Your task to perform on an android device: create a new album in the google photos Image 0: 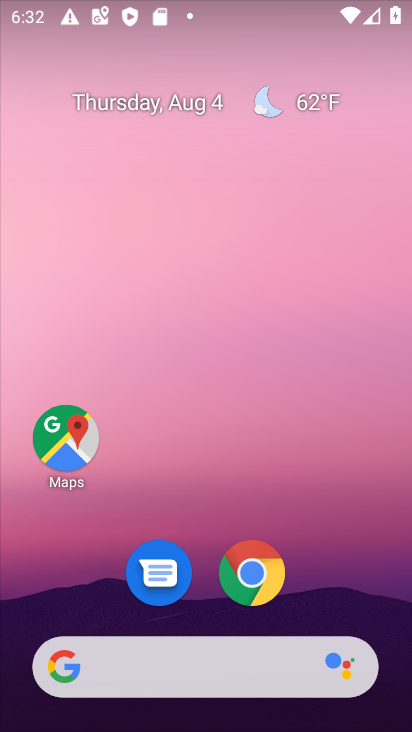
Step 0: press home button
Your task to perform on an android device: create a new album in the google photos Image 1: 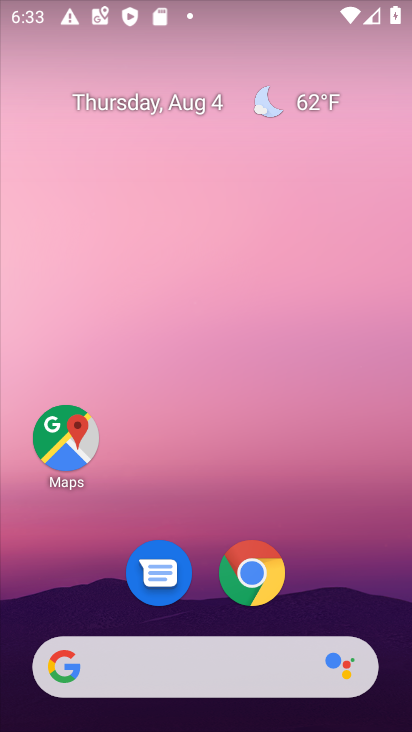
Step 1: drag from (206, 623) to (244, 200)
Your task to perform on an android device: create a new album in the google photos Image 2: 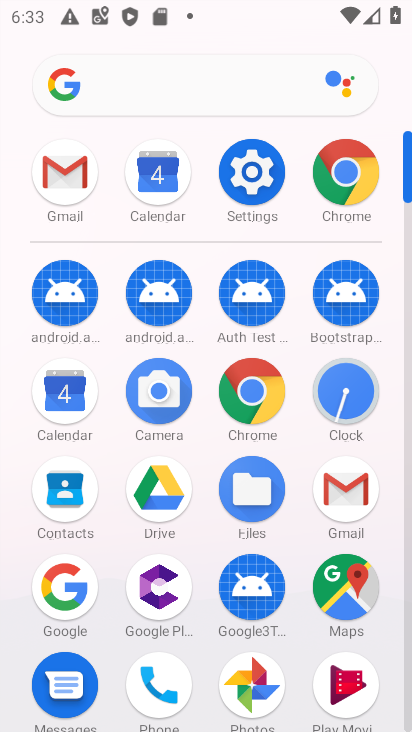
Step 2: click (250, 679)
Your task to perform on an android device: create a new album in the google photos Image 3: 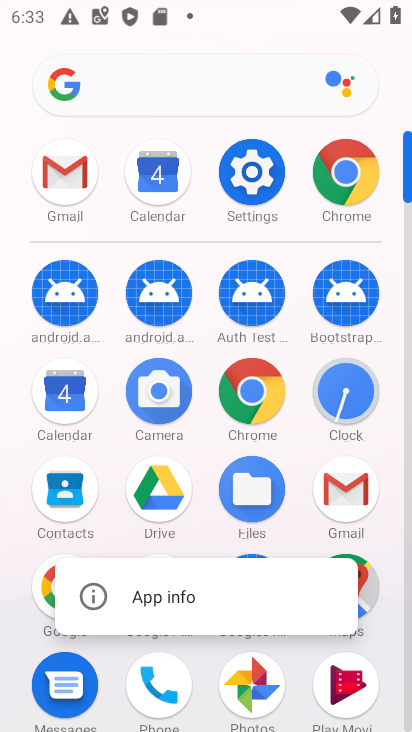
Step 3: click (250, 679)
Your task to perform on an android device: create a new album in the google photos Image 4: 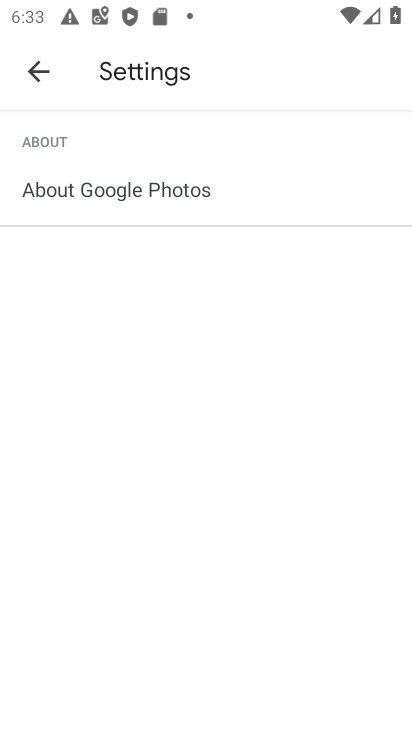
Step 4: click (35, 61)
Your task to perform on an android device: create a new album in the google photos Image 5: 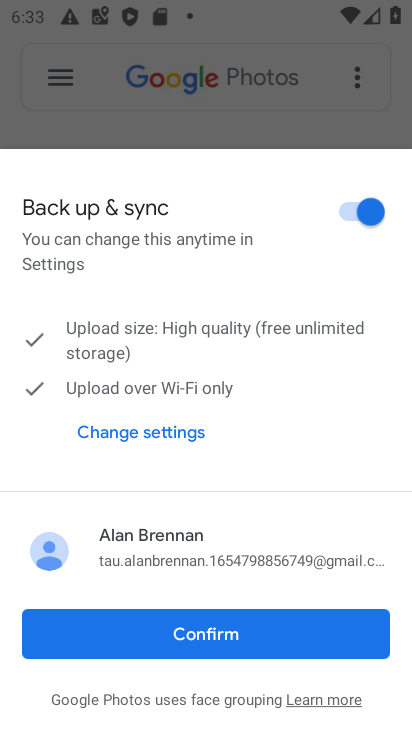
Step 5: click (271, 643)
Your task to perform on an android device: create a new album in the google photos Image 6: 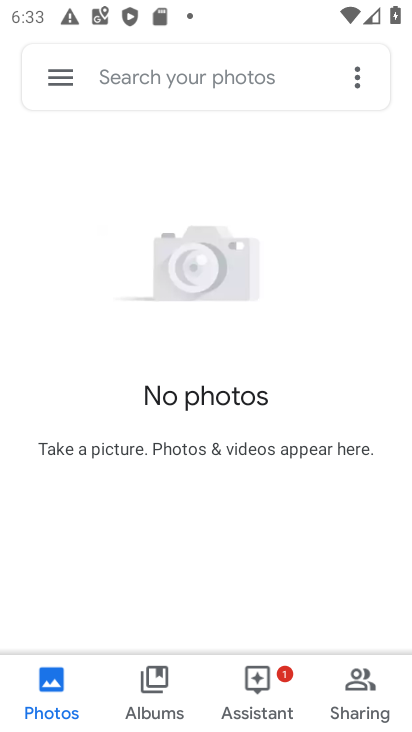
Step 6: task complete